Your task to perform on an android device: toggle show notifications on the lock screen Image 0: 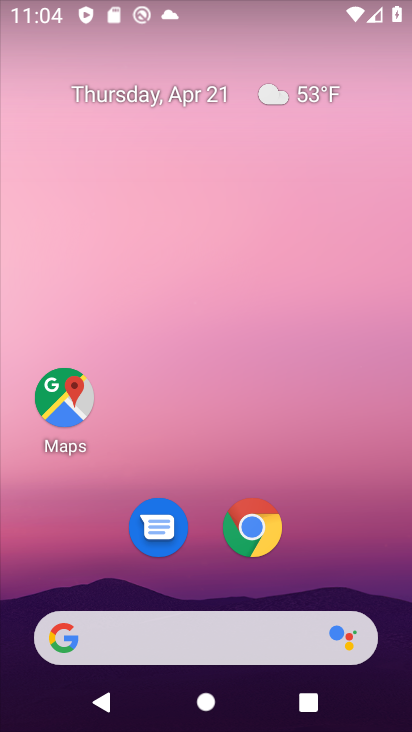
Step 0: drag from (355, 547) to (350, 102)
Your task to perform on an android device: toggle show notifications on the lock screen Image 1: 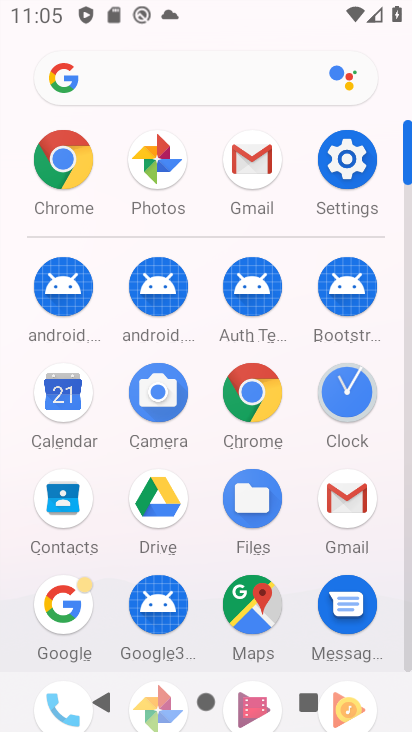
Step 1: click (354, 165)
Your task to perform on an android device: toggle show notifications on the lock screen Image 2: 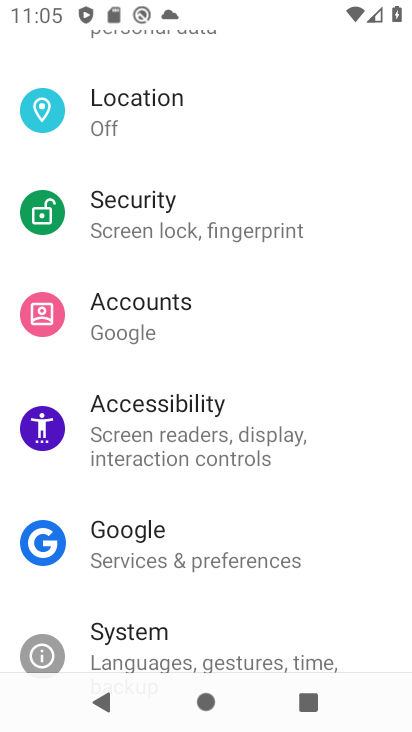
Step 2: drag from (368, 429) to (367, 505)
Your task to perform on an android device: toggle show notifications on the lock screen Image 3: 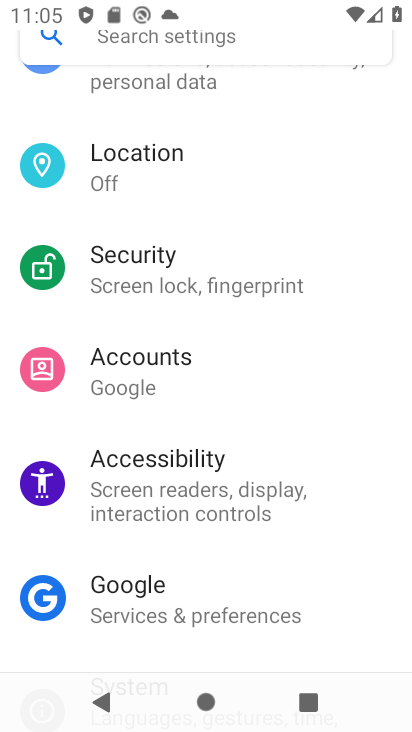
Step 3: drag from (368, 421) to (363, 516)
Your task to perform on an android device: toggle show notifications on the lock screen Image 4: 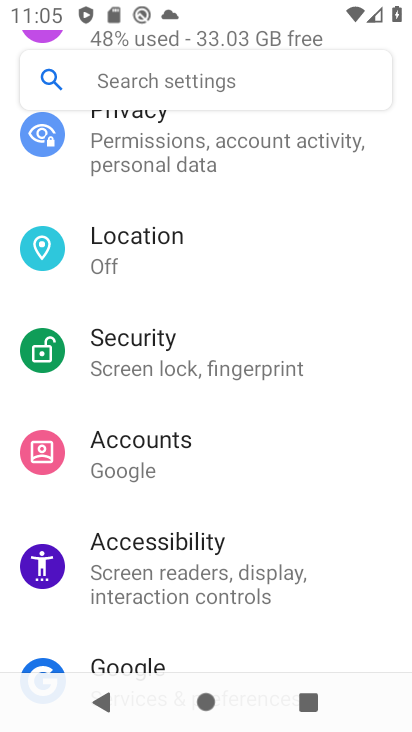
Step 4: drag from (358, 433) to (358, 522)
Your task to perform on an android device: toggle show notifications on the lock screen Image 5: 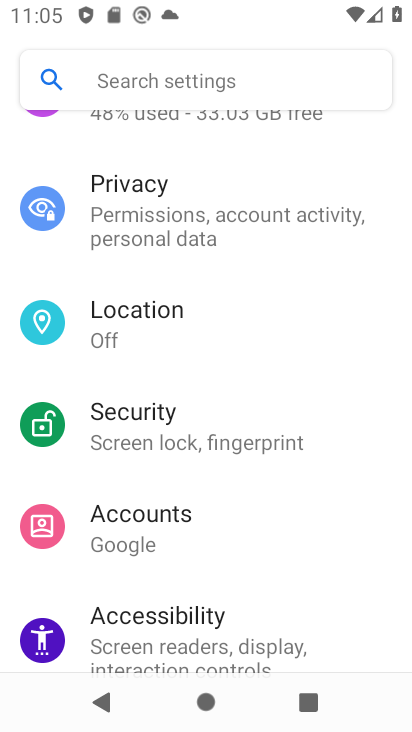
Step 5: drag from (364, 443) to (358, 533)
Your task to perform on an android device: toggle show notifications on the lock screen Image 6: 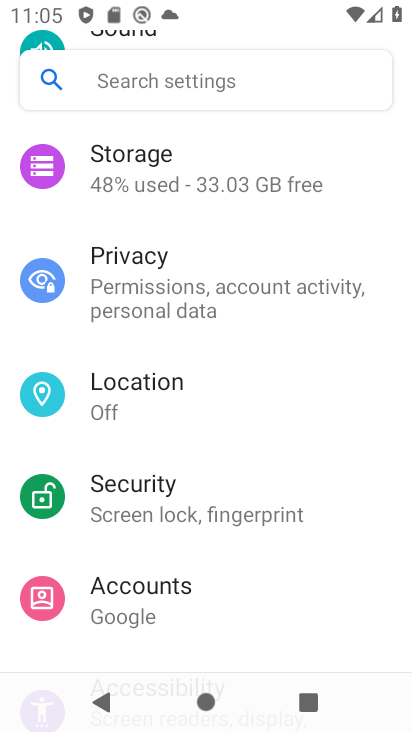
Step 6: drag from (358, 466) to (366, 537)
Your task to perform on an android device: toggle show notifications on the lock screen Image 7: 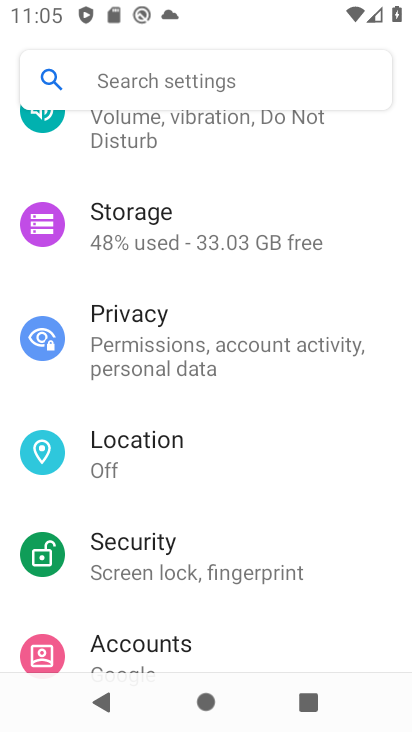
Step 7: drag from (362, 463) to (360, 536)
Your task to perform on an android device: toggle show notifications on the lock screen Image 8: 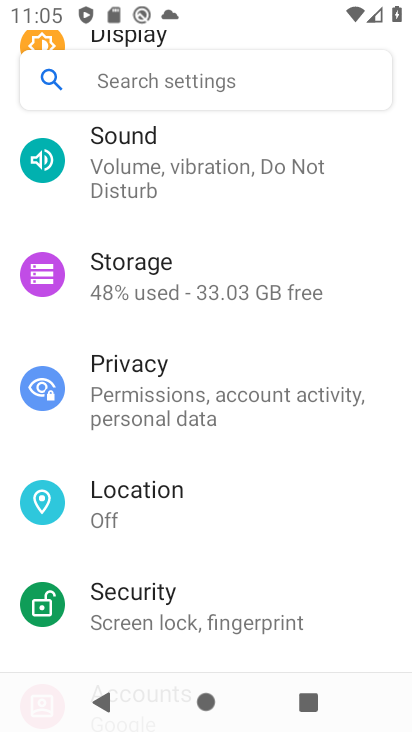
Step 8: drag from (367, 479) to (372, 548)
Your task to perform on an android device: toggle show notifications on the lock screen Image 9: 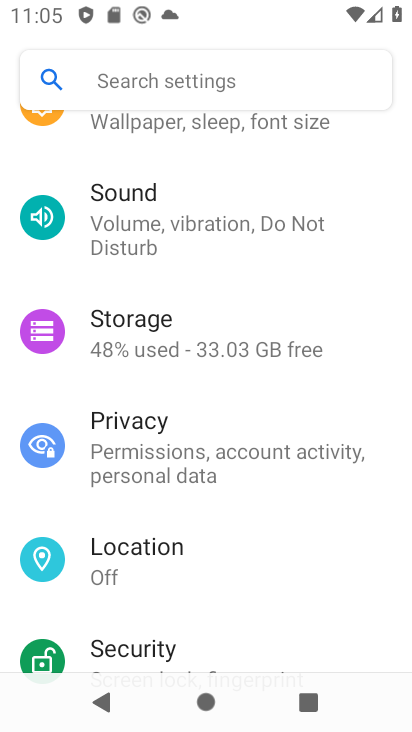
Step 9: drag from (377, 493) to (378, 579)
Your task to perform on an android device: toggle show notifications on the lock screen Image 10: 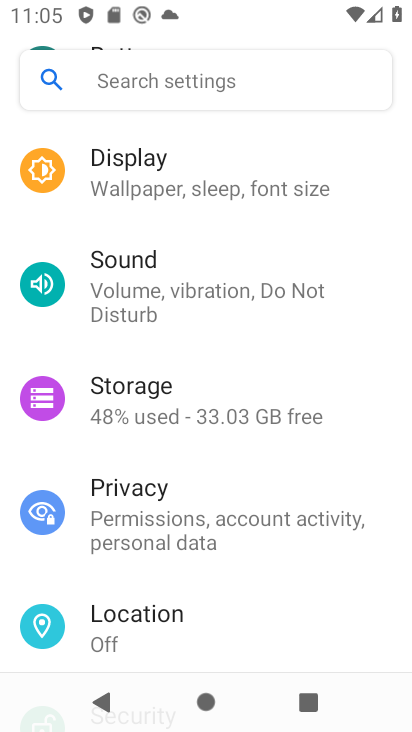
Step 10: drag from (377, 498) to (372, 602)
Your task to perform on an android device: toggle show notifications on the lock screen Image 11: 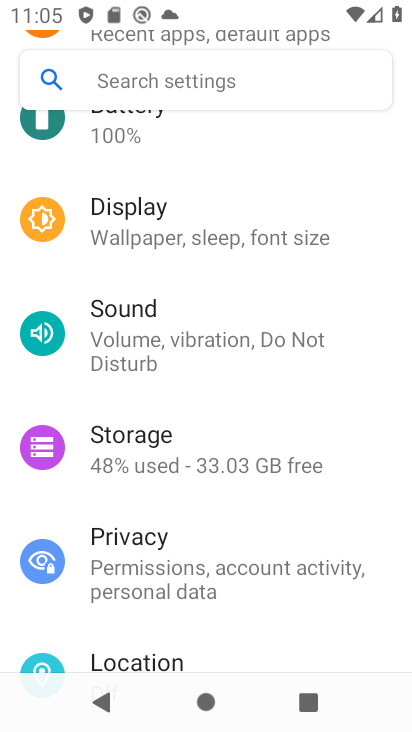
Step 11: drag from (371, 507) to (370, 617)
Your task to perform on an android device: toggle show notifications on the lock screen Image 12: 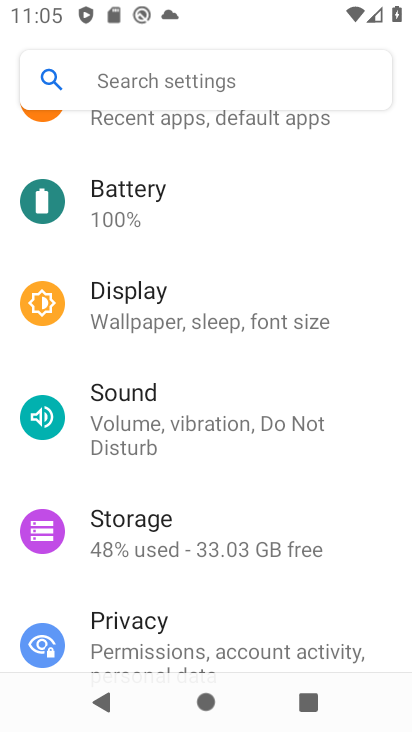
Step 12: drag from (376, 528) to (379, 630)
Your task to perform on an android device: toggle show notifications on the lock screen Image 13: 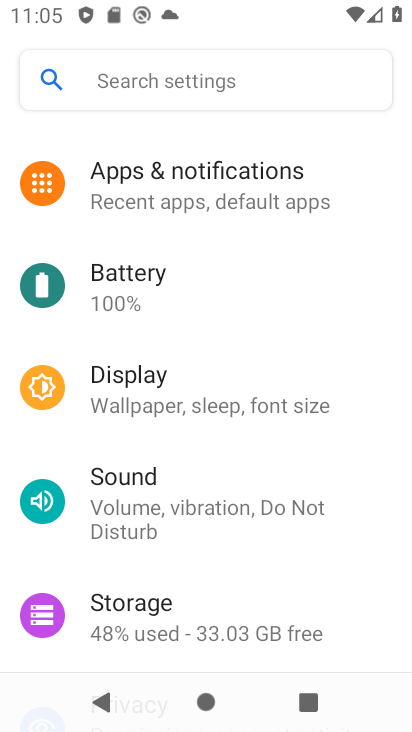
Step 13: drag from (357, 476) to (361, 587)
Your task to perform on an android device: toggle show notifications on the lock screen Image 14: 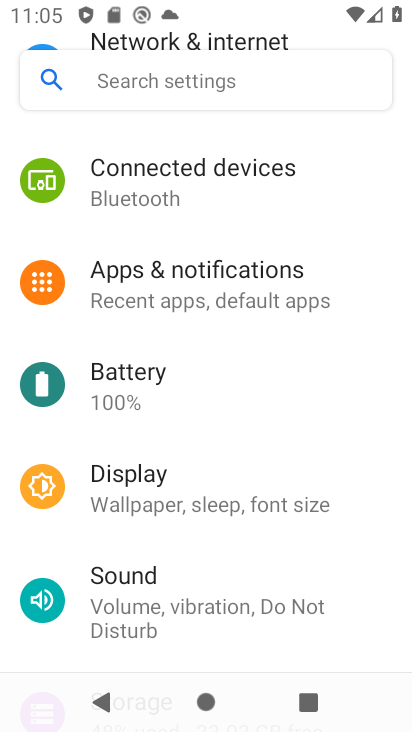
Step 14: drag from (346, 423) to (358, 597)
Your task to perform on an android device: toggle show notifications on the lock screen Image 15: 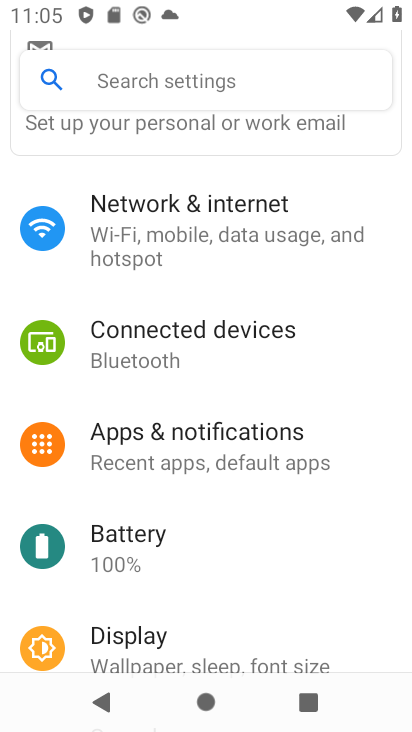
Step 15: drag from (366, 437) to (355, 552)
Your task to perform on an android device: toggle show notifications on the lock screen Image 16: 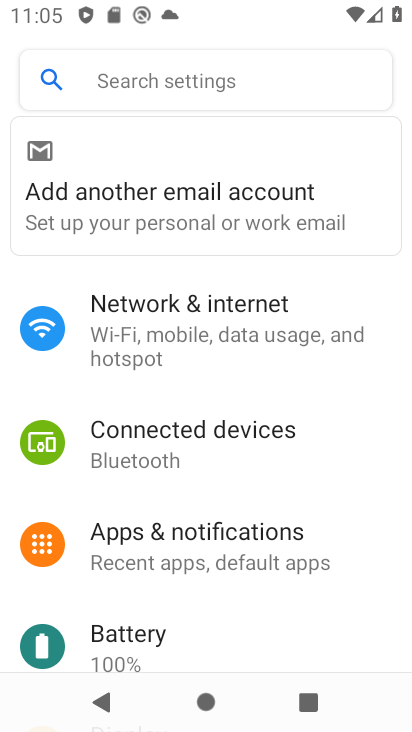
Step 16: click (280, 541)
Your task to perform on an android device: toggle show notifications on the lock screen Image 17: 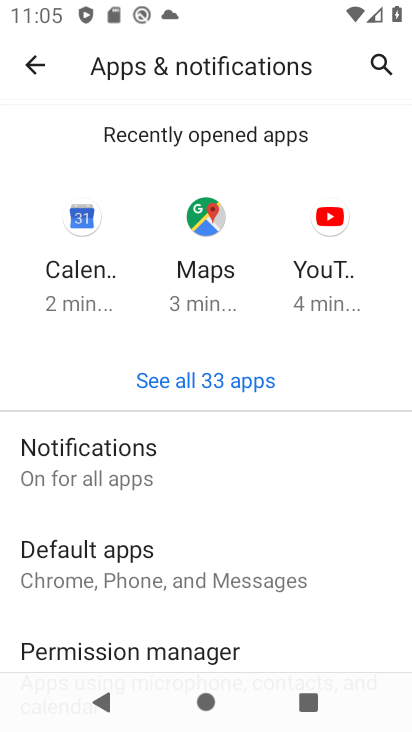
Step 17: click (87, 466)
Your task to perform on an android device: toggle show notifications on the lock screen Image 18: 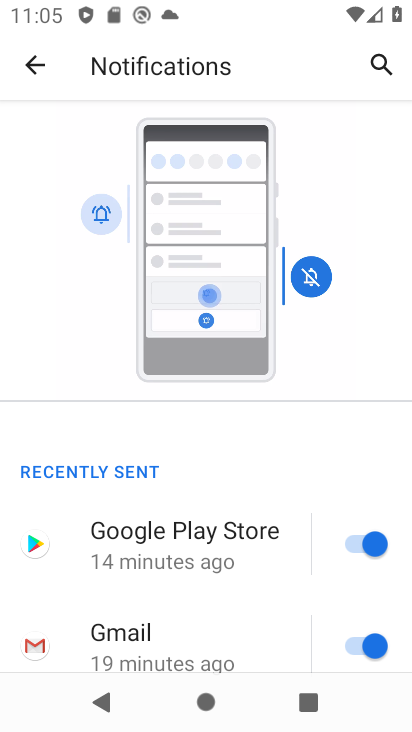
Step 18: drag from (282, 614) to (279, 406)
Your task to perform on an android device: toggle show notifications on the lock screen Image 19: 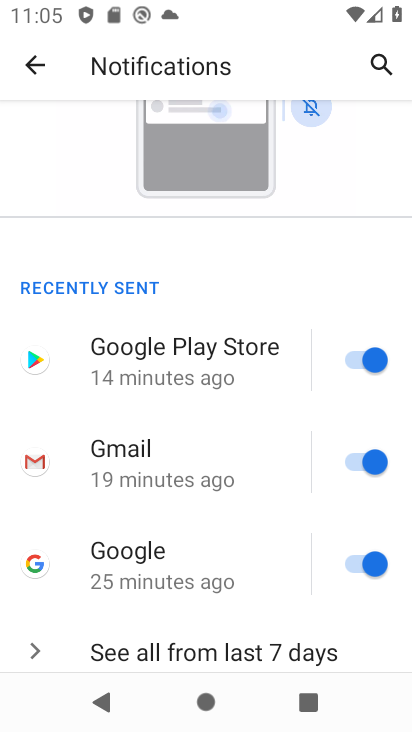
Step 19: drag from (270, 576) to (264, 433)
Your task to perform on an android device: toggle show notifications on the lock screen Image 20: 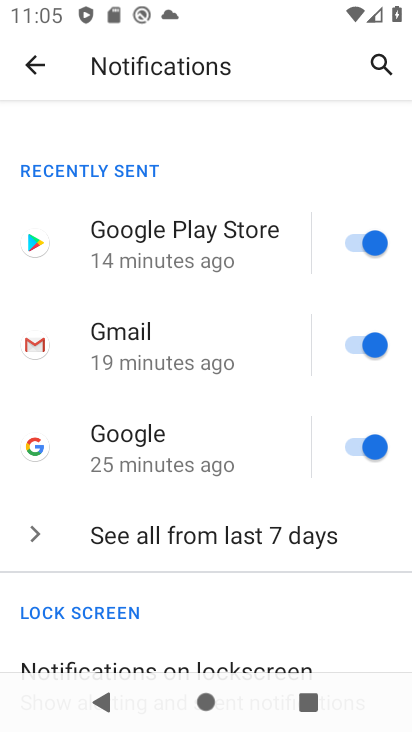
Step 20: drag from (247, 601) to (254, 414)
Your task to perform on an android device: toggle show notifications on the lock screen Image 21: 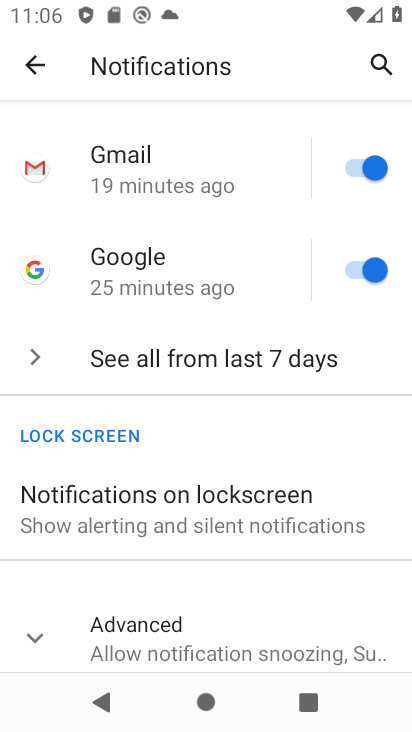
Step 21: click (232, 520)
Your task to perform on an android device: toggle show notifications on the lock screen Image 22: 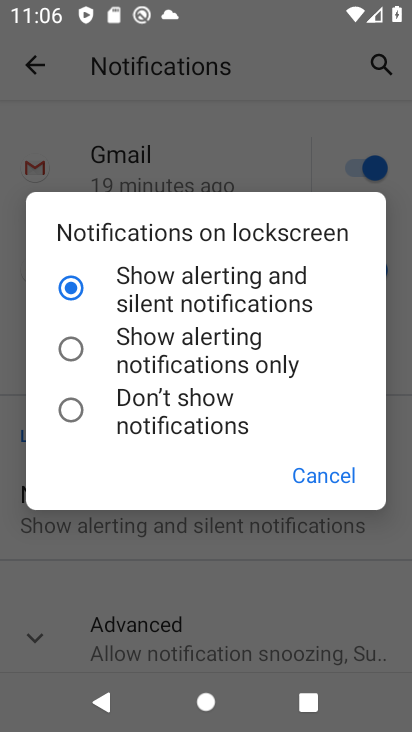
Step 22: click (68, 348)
Your task to perform on an android device: toggle show notifications on the lock screen Image 23: 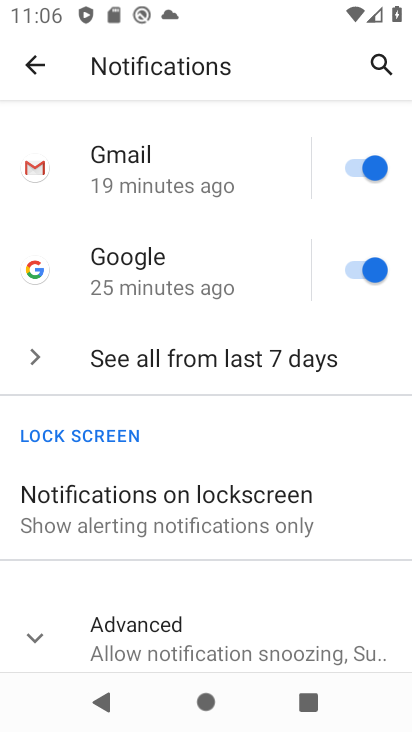
Step 23: task complete